Your task to perform on an android device: turn off data saver in the chrome app Image 0: 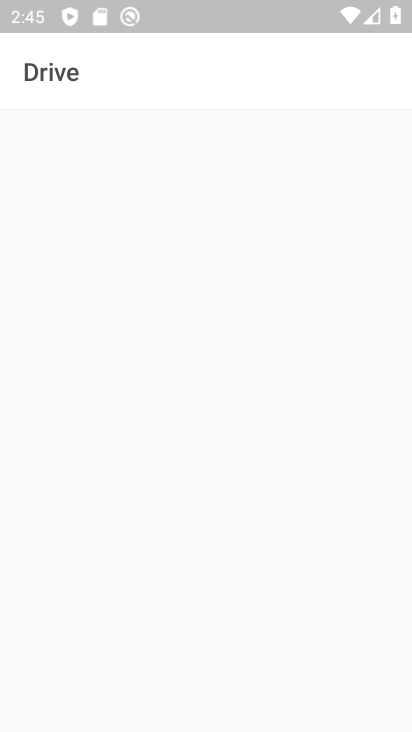
Step 0: press home button
Your task to perform on an android device: turn off data saver in the chrome app Image 1: 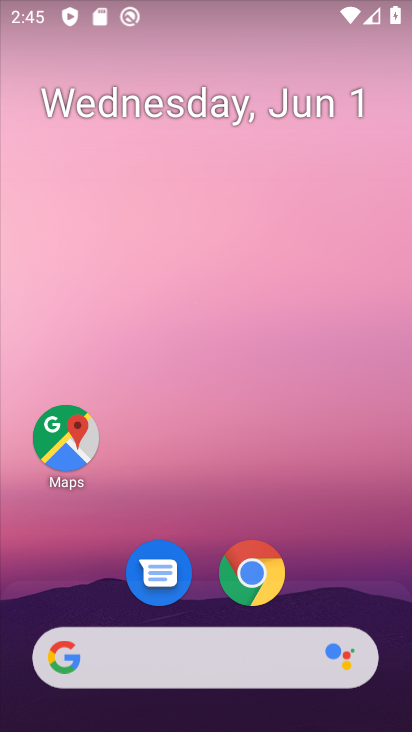
Step 1: click (239, 593)
Your task to perform on an android device: turn off data saver in the chrome app Image 2: 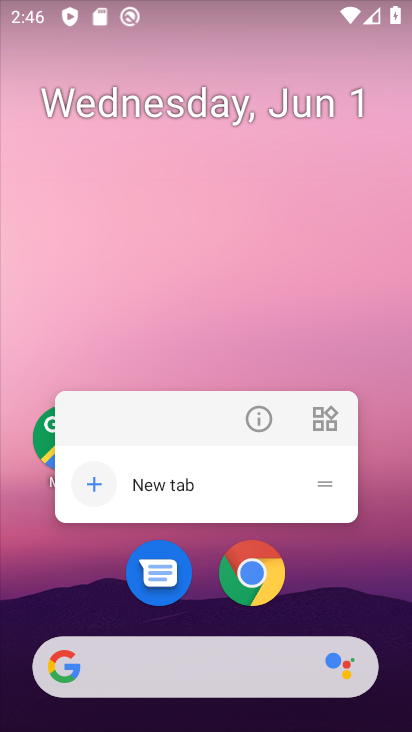
Step 2: click (255, 584)
Your task to perform on an android device: turn off data saver in the chrome app Image 3: 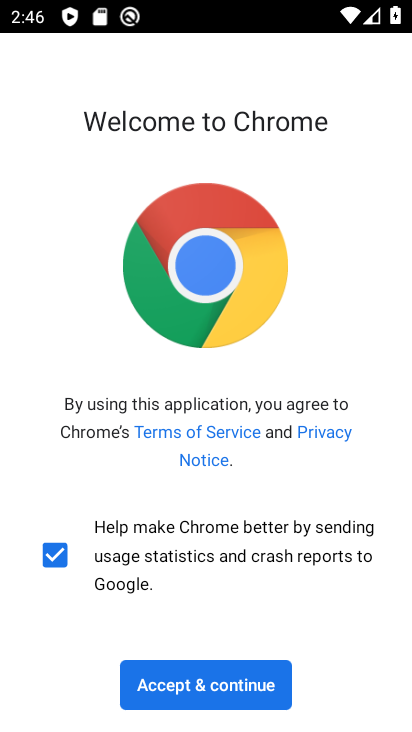
Step 3: click (244, 685)
Your task to perform on an android device: turn off data saver in the chrome app Image 4: 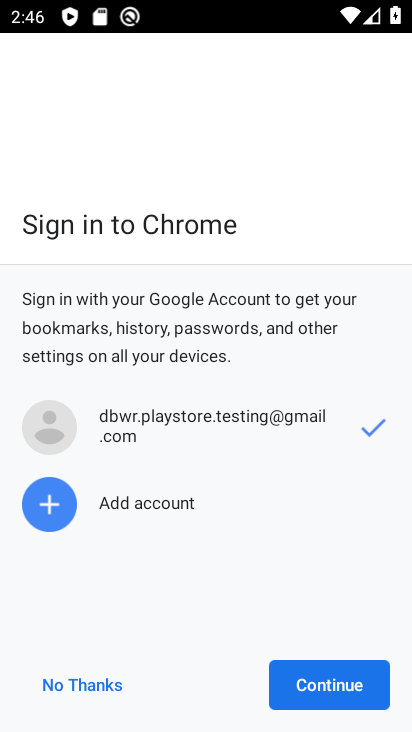
Step 4: click (356, 701)
Your task to perform on an android device: turn off data saver in the chrome app Image 5: 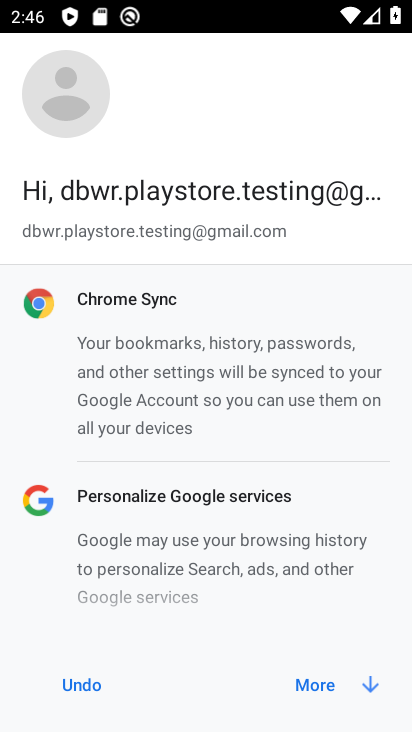
Step 5: click (341, 696)
Your task to perform on an android device: turn off data saver in the chrome app Image 6: 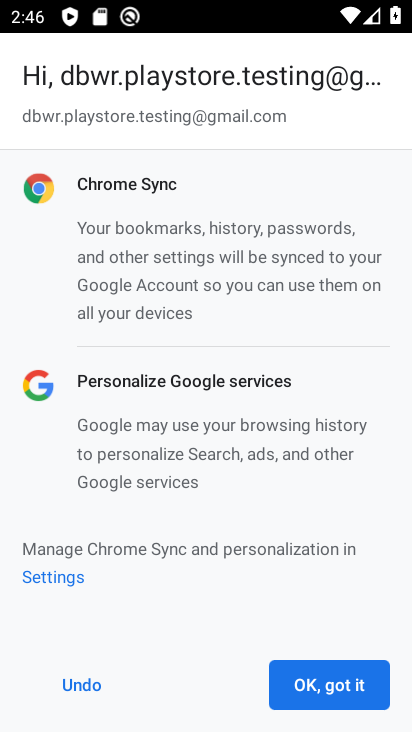
Step 6: click (341, 696)
Your task to perform on an android device: turn off data saver in the chrome app Image 7: 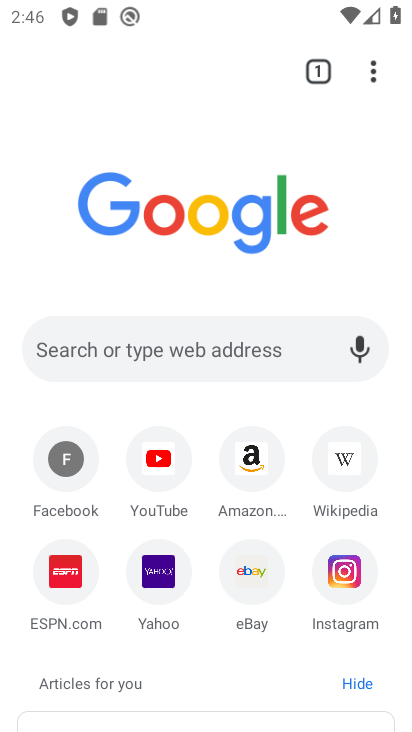
Step 7: drag from (388, 73) to (249, 573)
Your task to perform on an android device: turn off data saver in the chrome app Image 8: 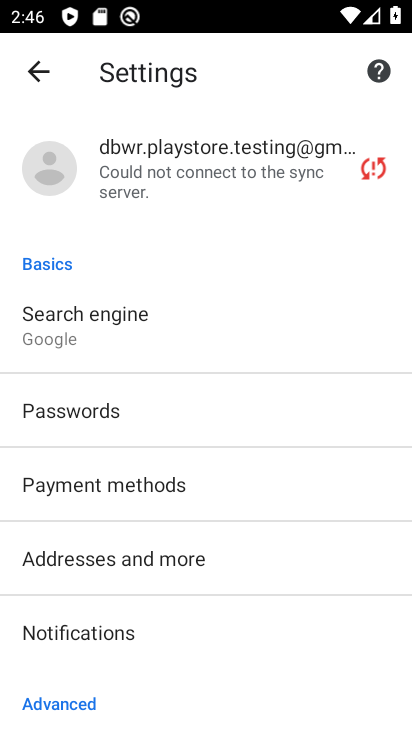
Step 8: drag from (122, 655) to (224, 222)
Your task to perform on an android device: turn off data saver in the chrome app Image 9: 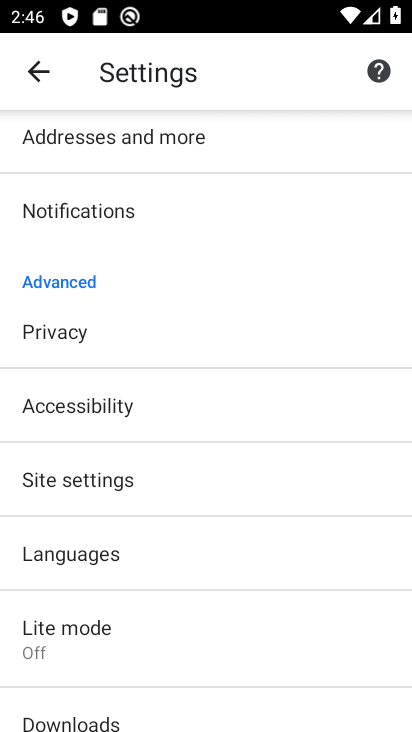
Step 9: click (96, 639)
Your task to perform on an android device: turn off data saver in the chrome app Image 10: 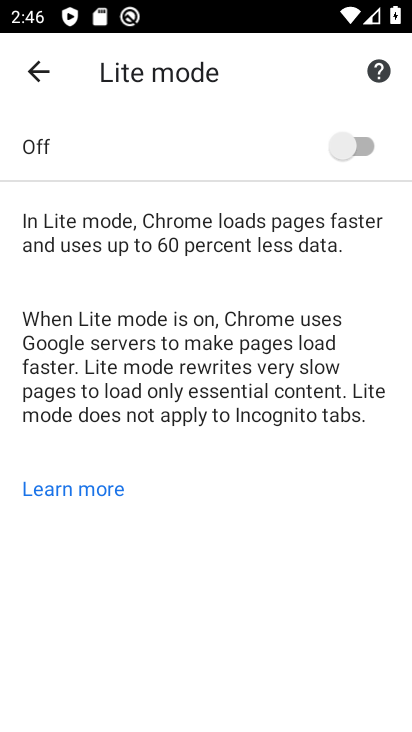
Step 10: task complete